Your task to perform on an android device: change your default location settings in chrome Image 0: 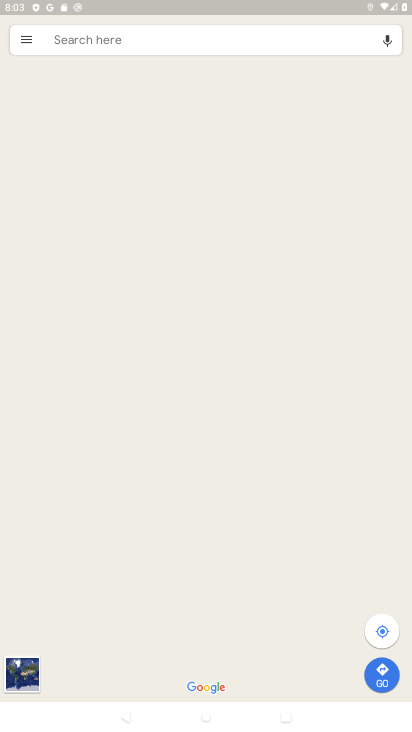
Step 0: press home button
Your task to perform on an android device: change your default location settings in chrome Image 1: 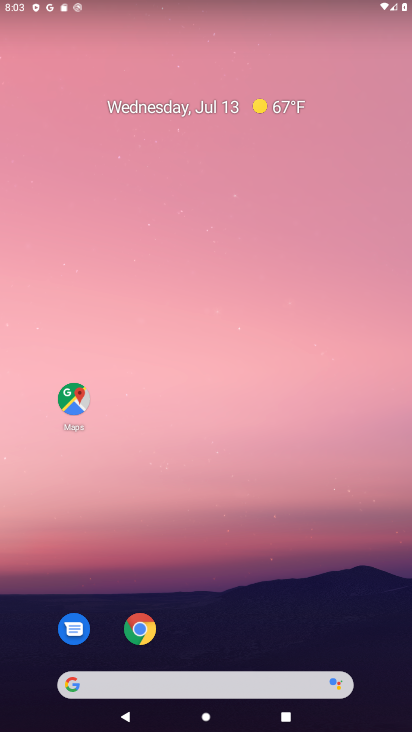
Step 1: drag from (209, 631) to (274, 86)
Your task to perform on an android device: change your default location settings in chrome Image 2: 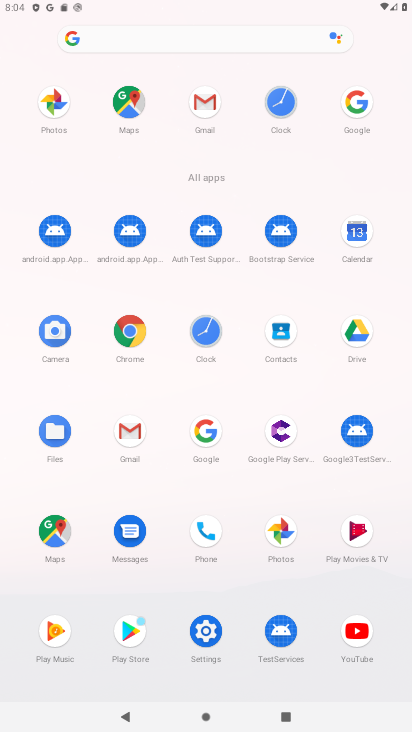
Step 2: click (127, 334)
Your task to perform on an android device: change your default location settings in chrome Image 3: 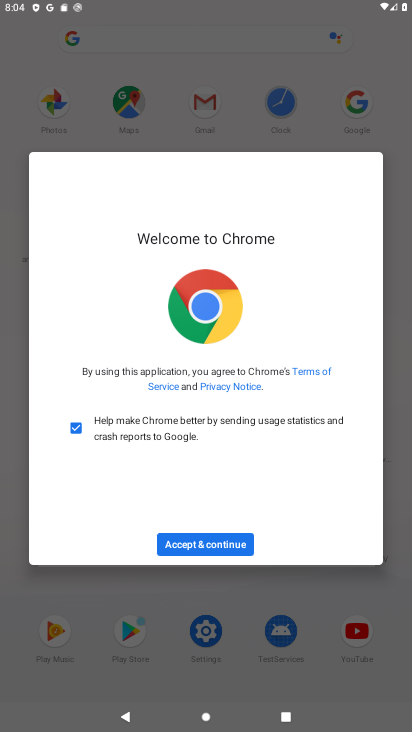
Step 3: click (224, 552)
Your task to perform on an android device: change your default location settings in chrome Image 4: 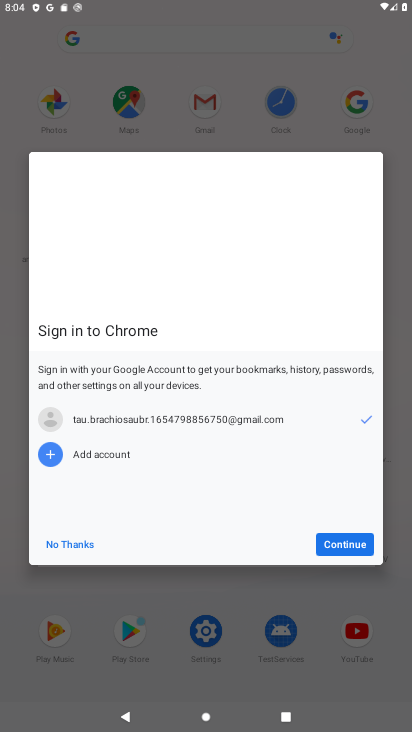
Step 4: click (321, 549)
Your task to perform on an android device: change your default location settings in chrome Image 5: 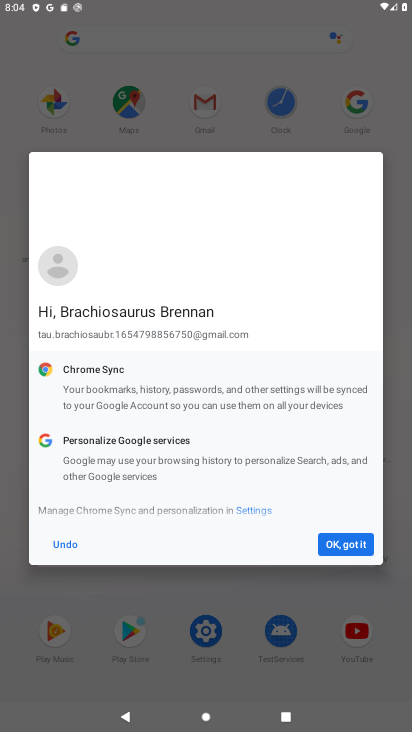
Step 5: click (331, 548)
Your task to perform on an android device: change your default location settings in chrome Image 6: 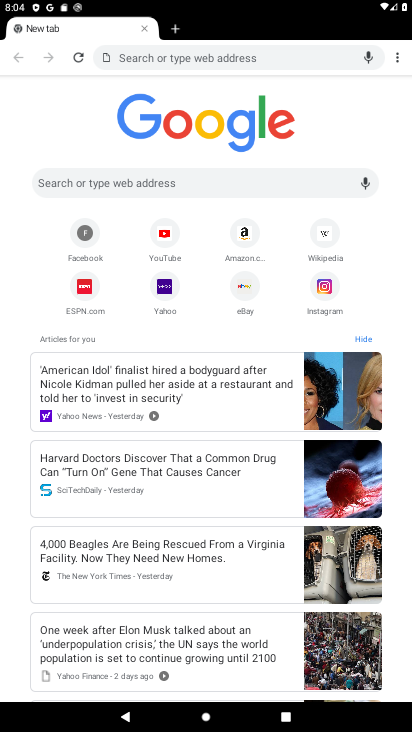
Step 6: click (398, 61)
Your task to perform on an android device: change your default location settings in chrome Image 7: 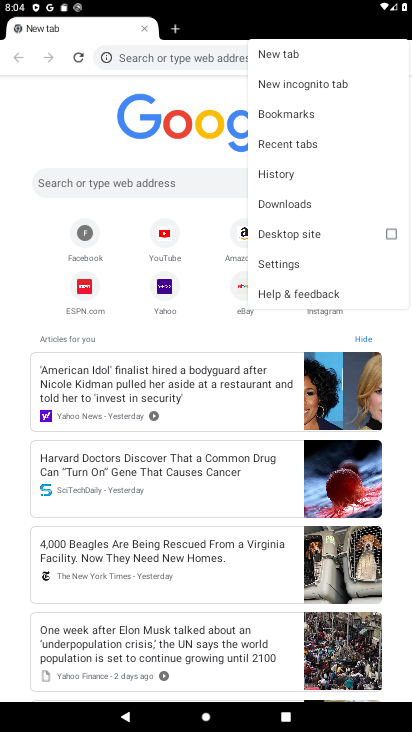
Step 7: click (274, 268)
Your task to perform on an android device: change your default location settings in chrome Image 8: 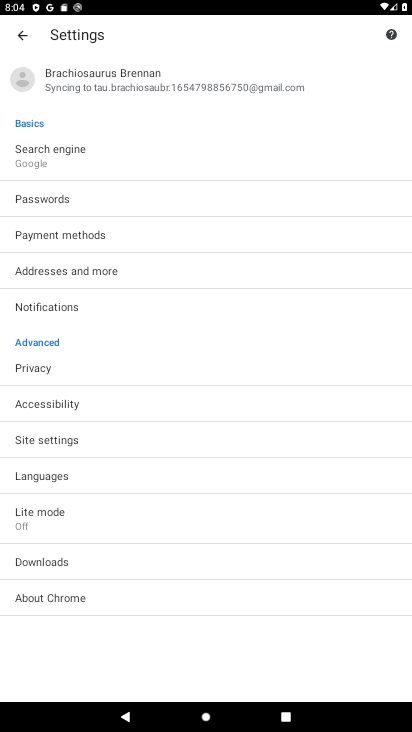
Step 8: click (51, 443)
Your task to perform on an android device: change your default location settings in chrome Image 9: 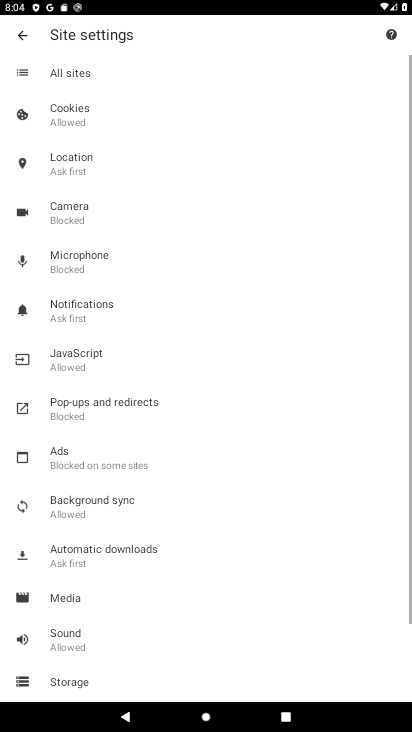
Step 9: click (88, 170)
Your task to perform on an android device: change your default location settings in chrome Image 10: 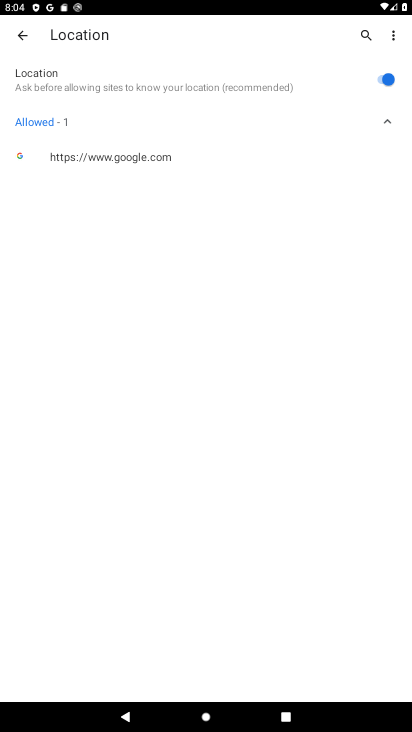
Step 10: click (381, 83)
Your task to perform on an android device: change your default location settings in chrome Image 11: 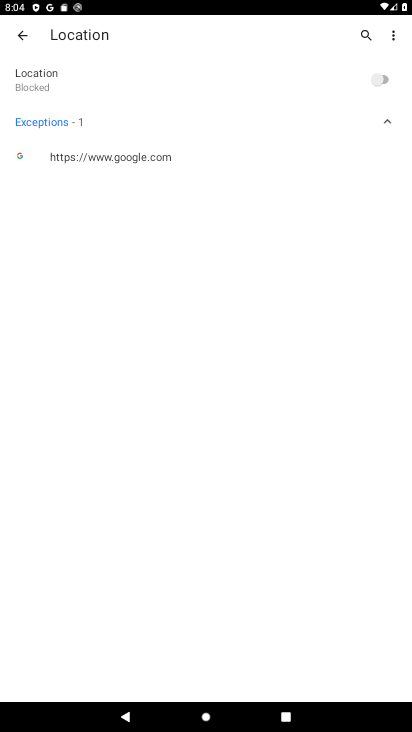
Step 11: task complete